Your task to perform on an android device: choose inbox layout in the gmail app Image 0: 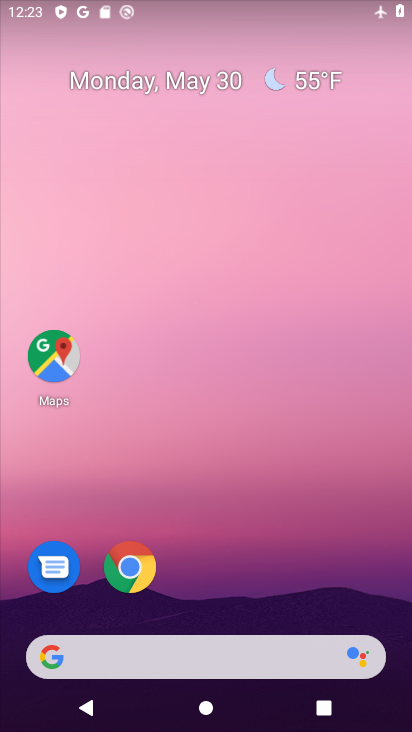
Step 0: drag from (223, 621) to (239, 41)
Your task to perform on an android device: choose inbox layout in the gmail app Image 1: 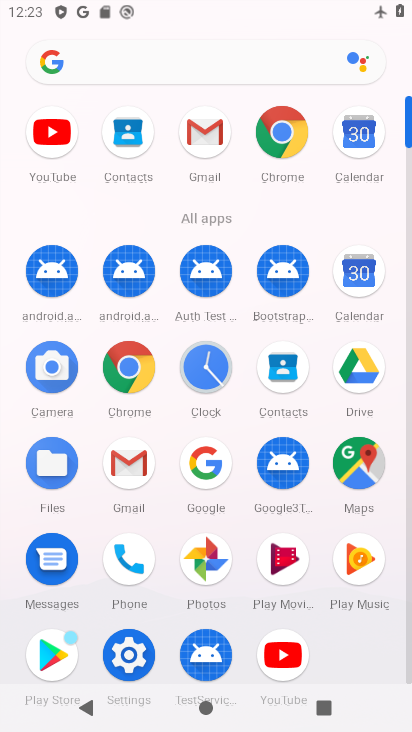
Step 1: click (202, 127)
Your task to perform on an android device: choose inbox layout in the gmail app Image 2: 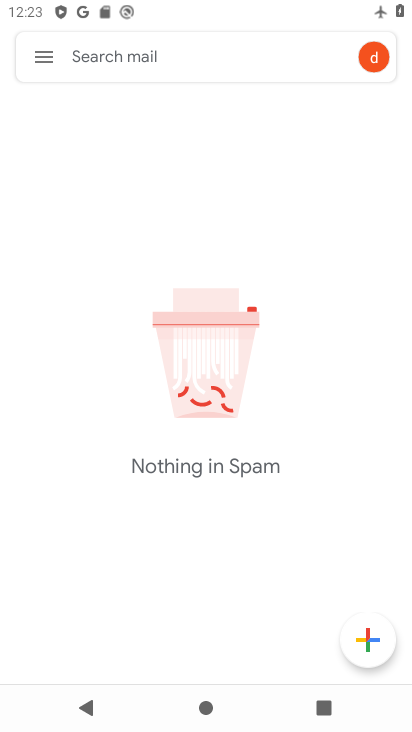
Step 2: click (40, 59)
Your task to perform on an android device: choose inbox layout in the gmail app Image 3: 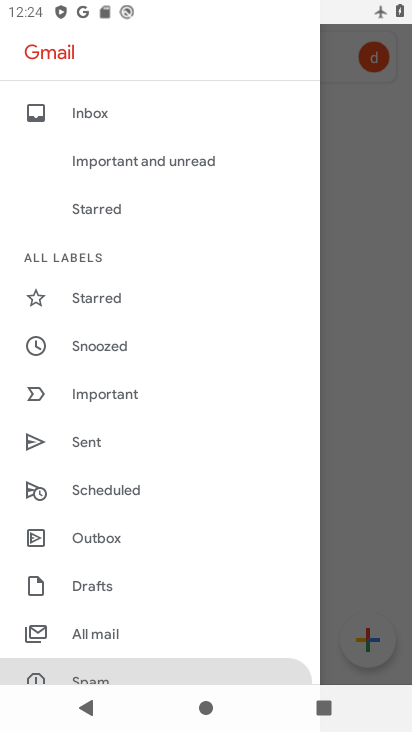
Step 3: drag from (153, 627) to (168, 50)
Your task to perform on an android device: choose inbox layout in the gmail app Image 4: 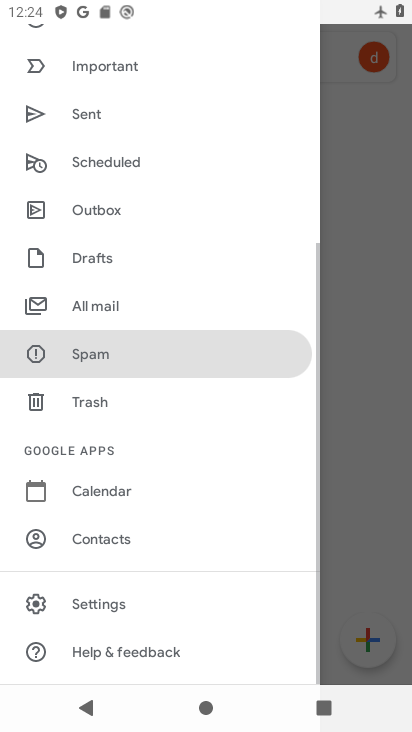
Step 4: click (128, 599)
Your task to perform on an android device: choose inbox layout in the gmail app Image 5: 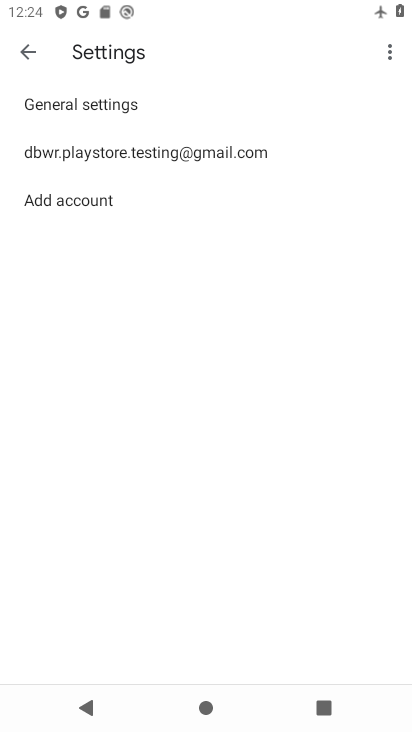
Step 5: click (197, 154)
Your task to perform on an android device: choose inbox layout in the gmail app Image 6: 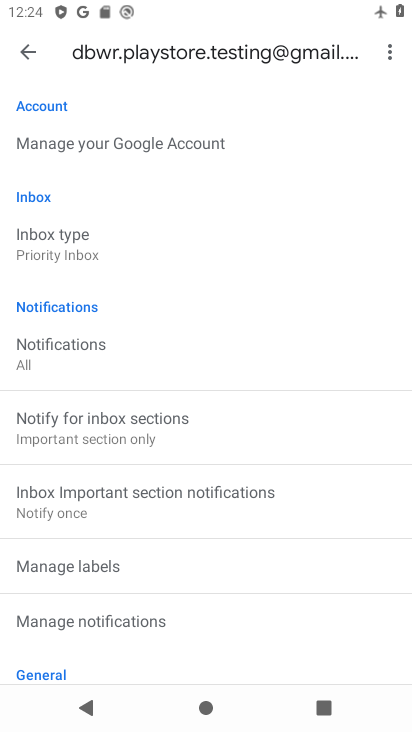
Step 6: click (114, 238)
Your task to perform on an android device: choose inbox layout in the gmail app Image 7: 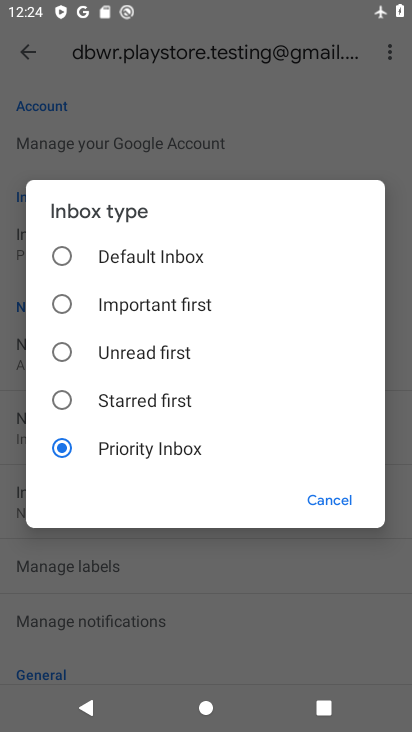
Step 7: click (63, 252)
Your task to perform on an android device: choose inbox layout in the gmail app Image 8: 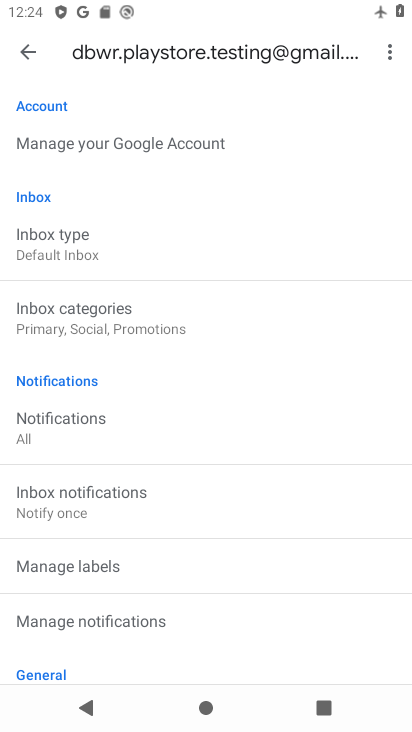
Step 8: task complete